Your task to perform on an android device: Open calendar and show me the first week of next month Image 0: 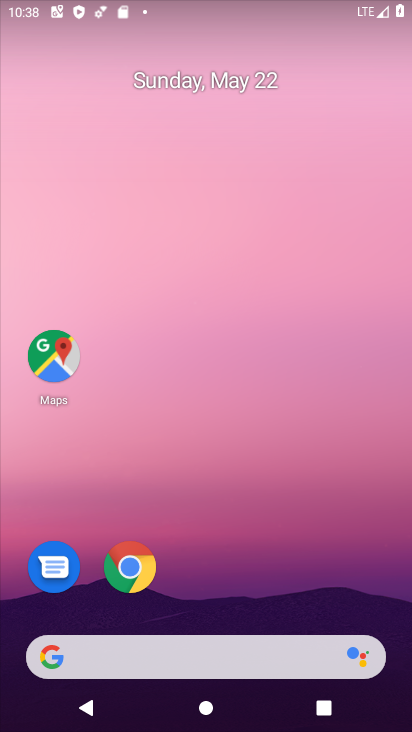
Step 0: drag from (247, 503) to (261, 0)
Your task to perform on an android device: Open calendar and show me the first week of next month Image 1: 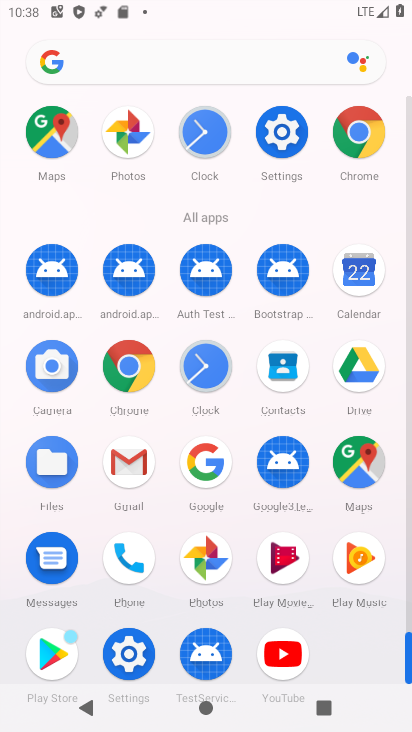
Step 1: drag from (4, 541) to (13, 227)
Your task to perform on an android device: Open calendar and show me the first week of next month Image 2: 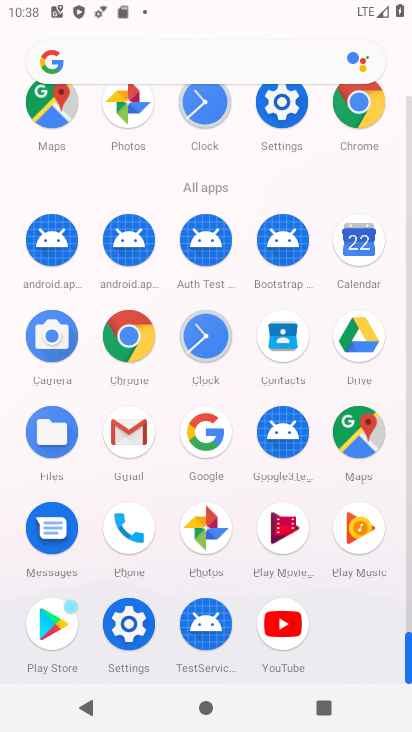
Step 2: click (362, 230)
Your task to perform on an android device: Open calendar and show me the first week of next month Image 3: 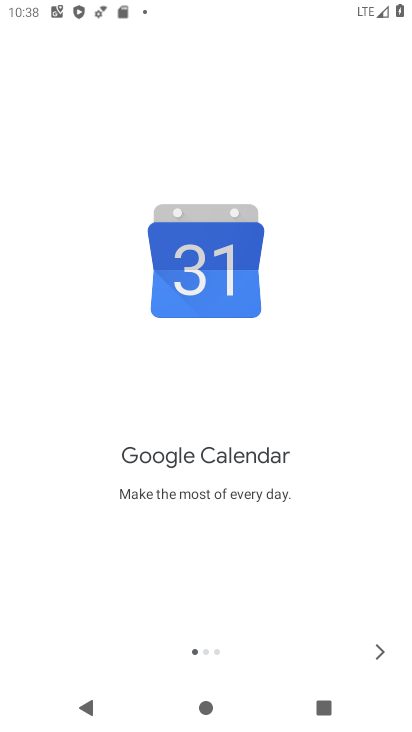
Step 3: click (385, 653)
Your task to perform on an android device: Open calendar and show me the first week of next month Image 4: 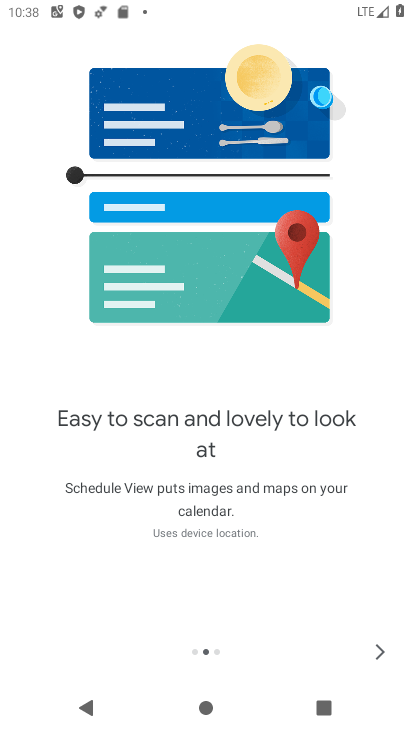
Step 4: click (377, 650)
Your task to perform on an android device: Open calendar and show me the first week of next month Image 5: 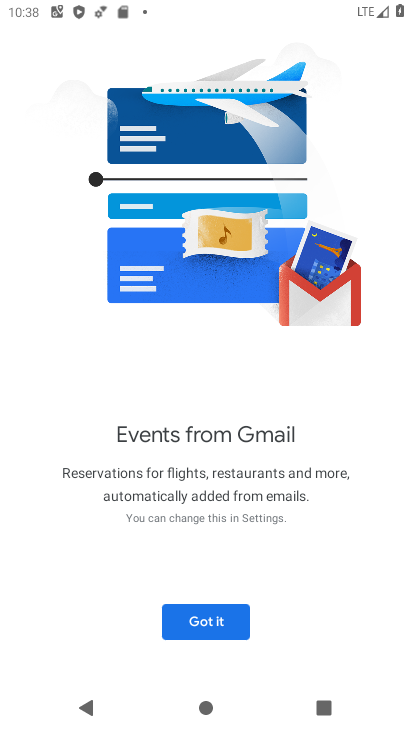
Step 5: click (226, 617)
Your task to perform on an android device: Open calendar and show me the first week of next month Image 6: 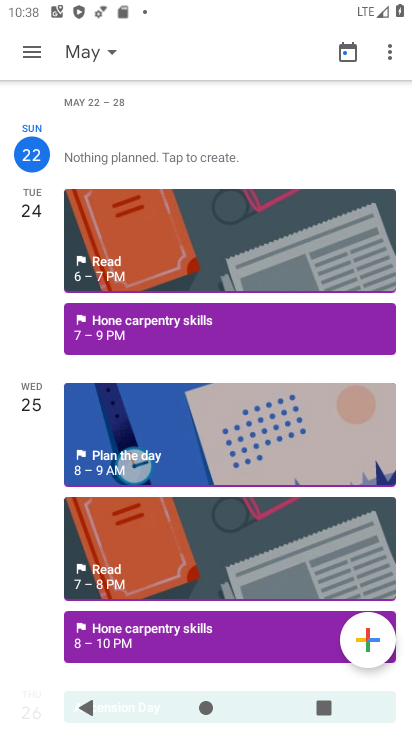
Step 6: click (102, 46)
Your task to perform on an android device: Open calendar and show me the first week of next month Image 7: 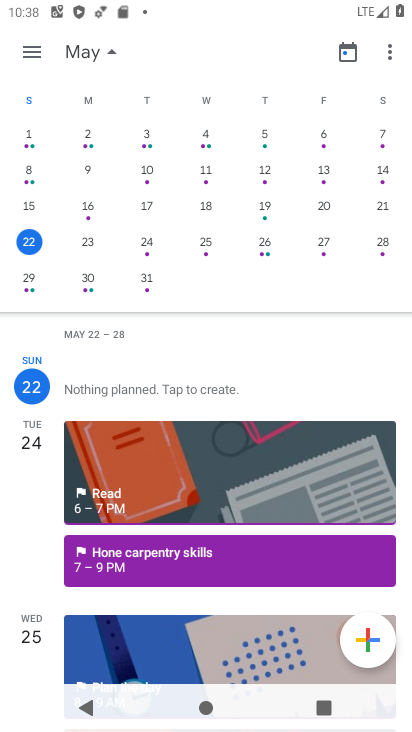
Step 7: drag from (392, 169) to (0, 151)
Your task to perform on an android device: Open calendar and show me the first week of next month Image 8: 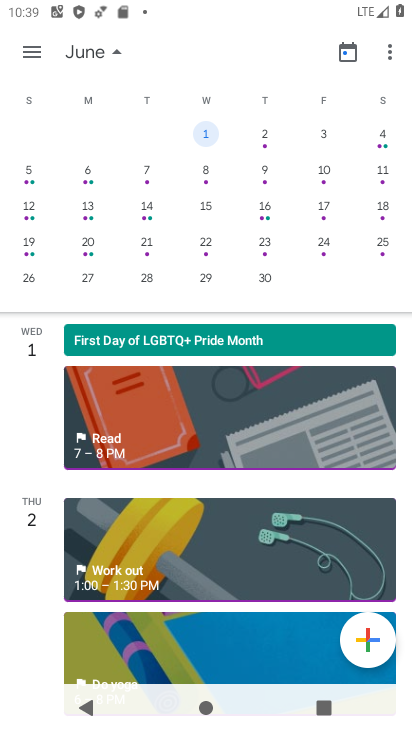
Step 8: click (27, 49)
Your task to perform on an android device: Open calendar and show me the first week of next month Image 9: 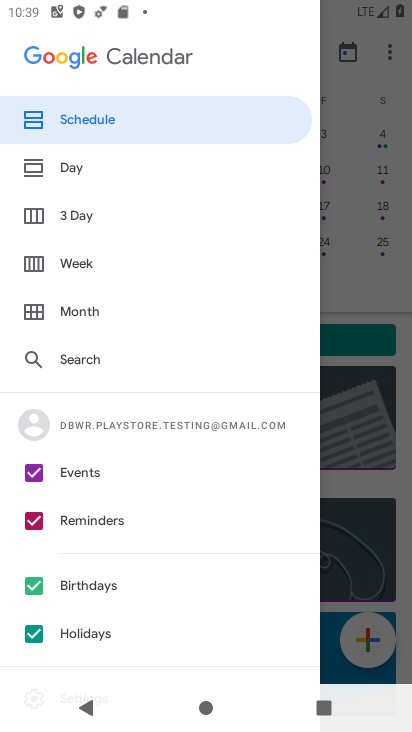
Step 9: click (88, 263)
Your task to perform on an android device: Open calendar and show me the first week of next month Image 10: 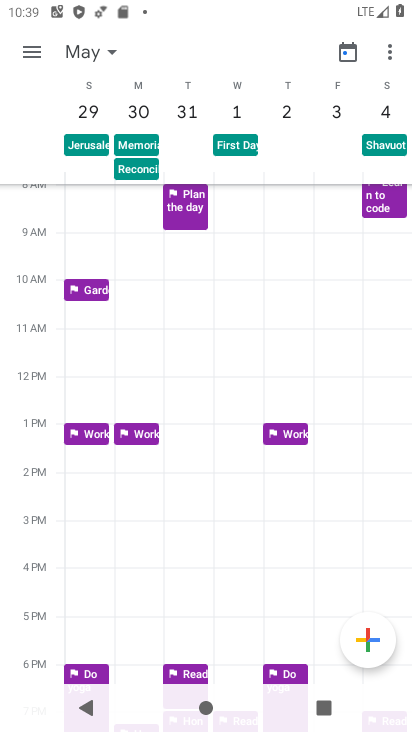
Step 10: task complete